Your task to perform on an android device: turn on sleep mode Image 0: 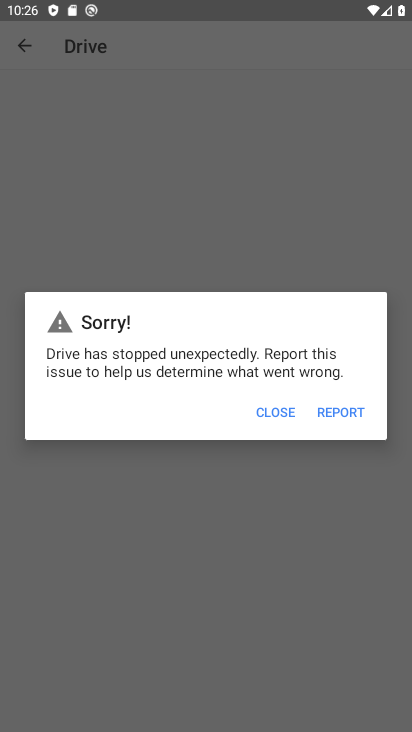
Step 0: press home button
Your task to perform on an android device: turn on sleep mode Image 1: 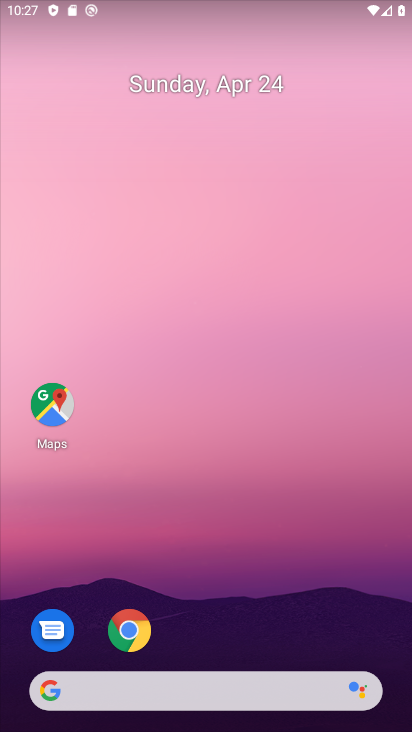
Step 1: drag from (219, 629) to (214, 201)
Your task to perform on an android device: turn on sleep mode Image 2: 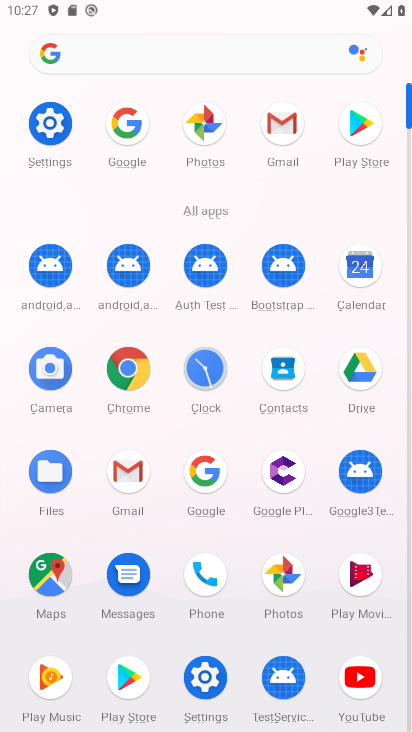
Step 2: click (67, 133)
Your task to perform on an android device: turn on sleep mode Image 3: 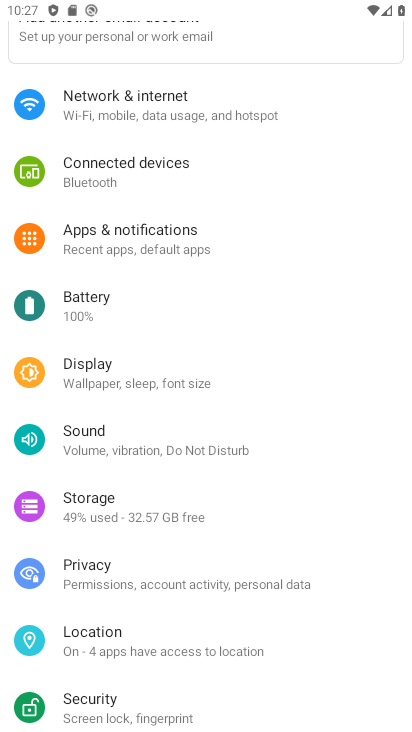
Step 3: click (80, 373)
Your task to perform on an android device: turn on sleep mode Image 4: 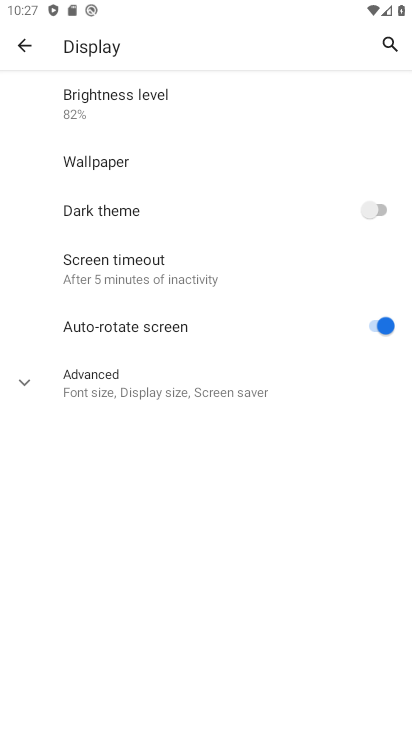
Step 4: click (140, 286)
Your task to perform on an android device: turn on sleep mode Image 5: 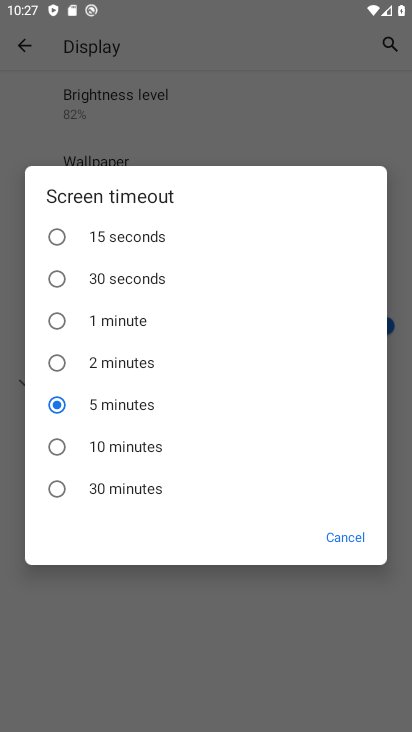
Step 5: click (118, 459)
Your task to perform on an android device: turn on sleep mode Image 6: 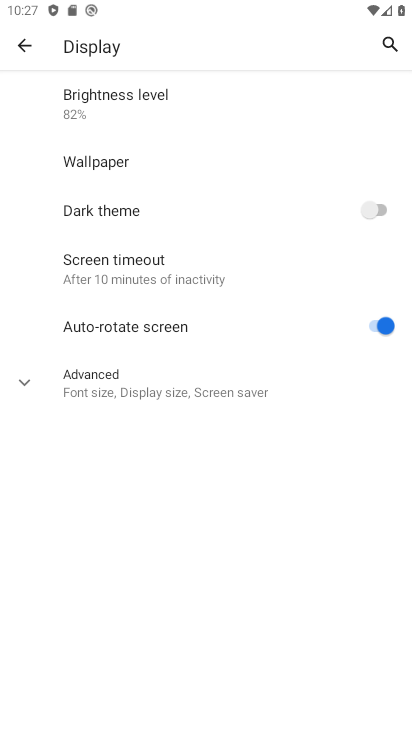
Step 6: task complete